Your task to perform on an android device: delete the emails in spam in the gmail app Image 0: 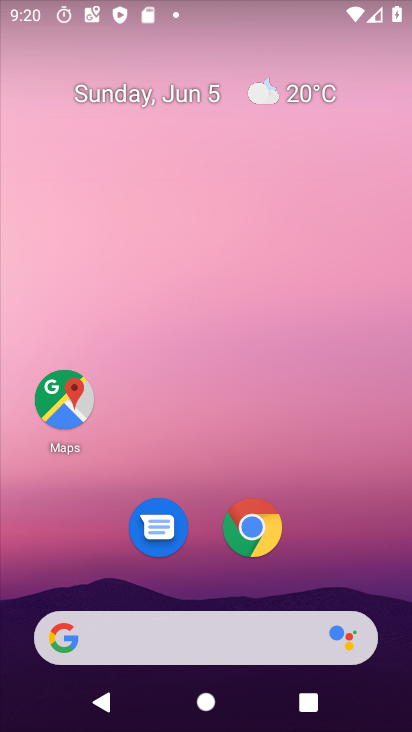
Step 0: drag from (348, 471) to (308, 39)
Your task to perform on an android device: delete the emails in spam in the gmail app Image 1: 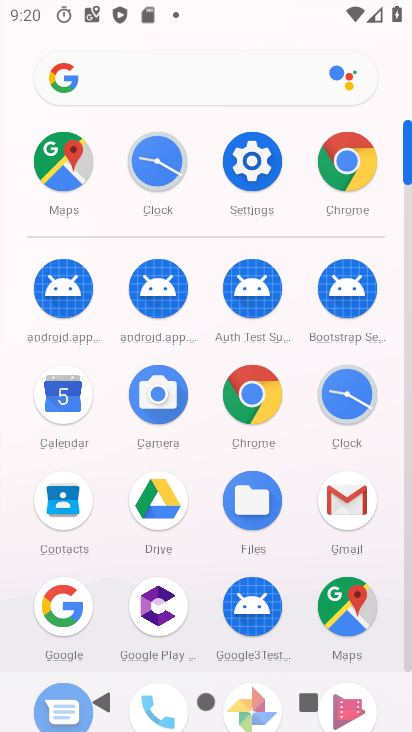
Step 1: click (351, 503)
Your task to perform on an android device: delete the emails in spam in the gmail app Image 2: 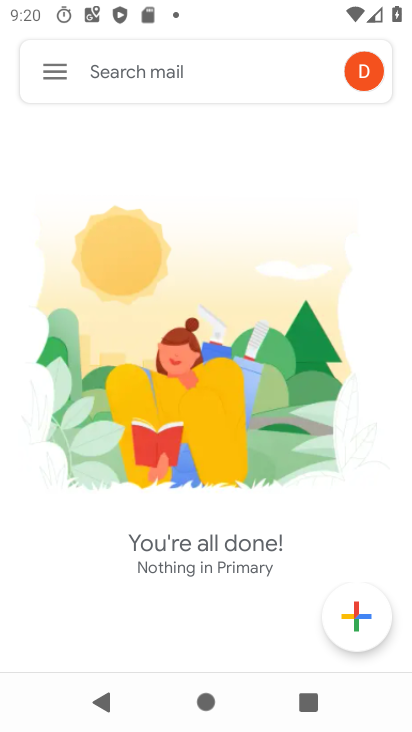
Step 2: click (52, 82)
Your task to perform on an android device: delete the emails in spam in the gmail app Image 3: 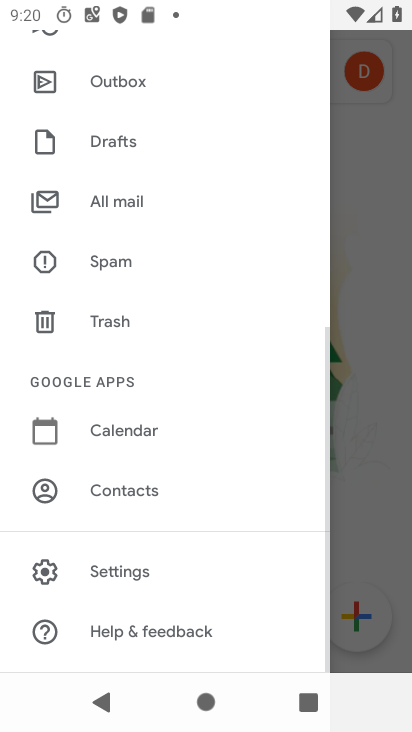
Step 3: click (104, 248)
Your task to perform on an android device: delete the emails in spam in the gmail app Image 4: 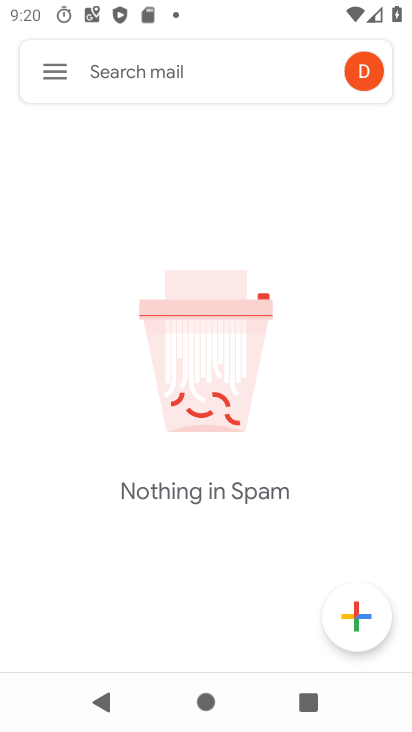
Step 4: task complete